Your task to perform on an android device: What's the weather like in Johannesburg? Image 0: 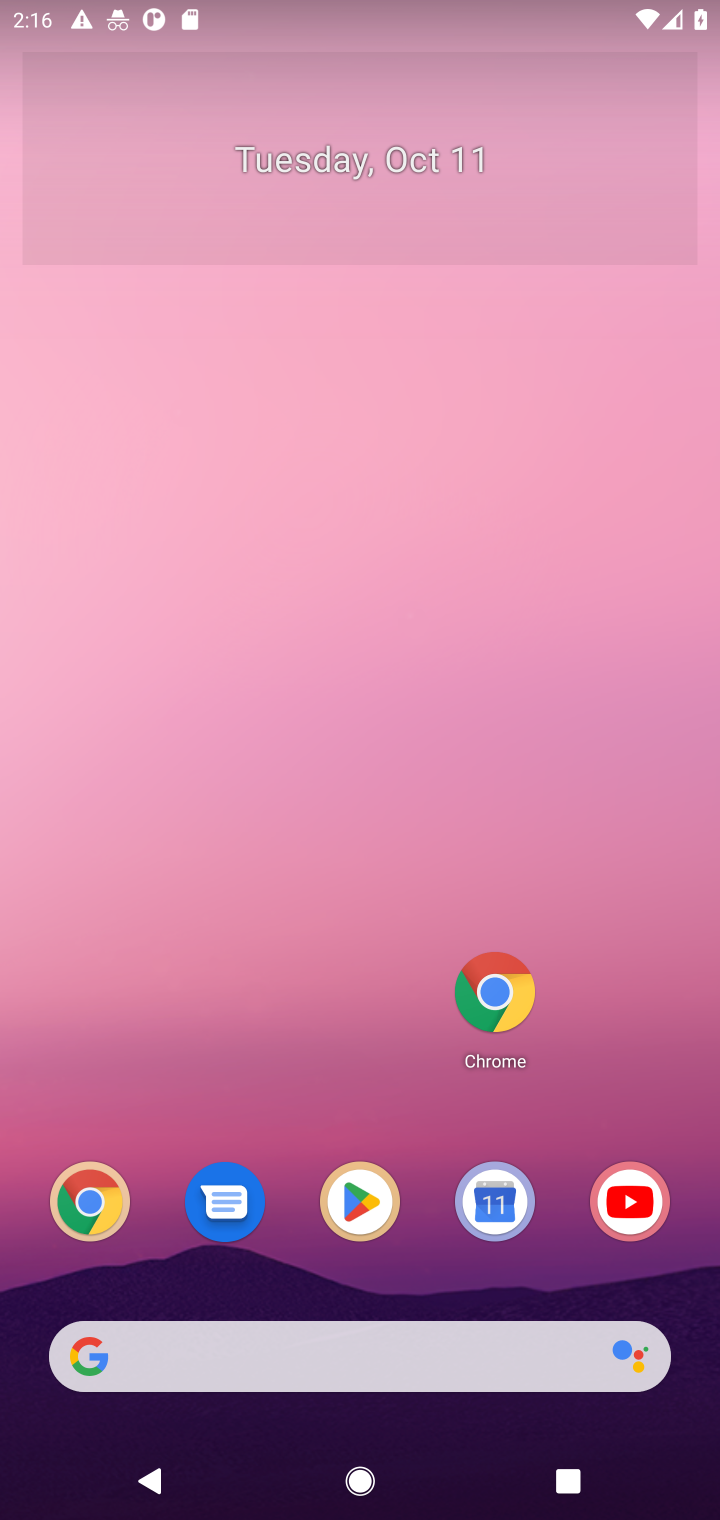
Step 0: click (511, 984)
Your task to perform on an android device: What's the weather like in Johannesburg? Image 1: 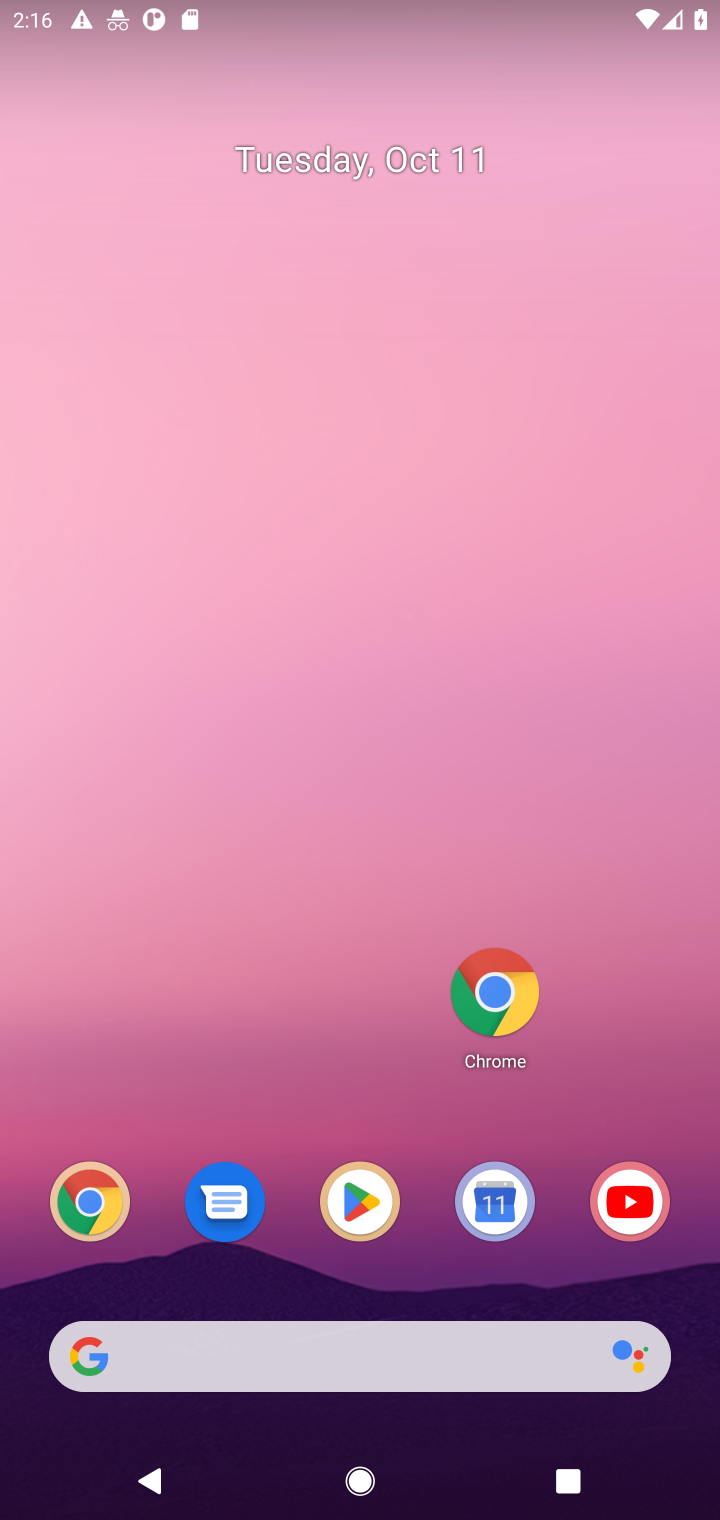
Step 1: click (513, 984)
Your task to perform on an android device: What's the weather like in Johannesburg? Image 2: 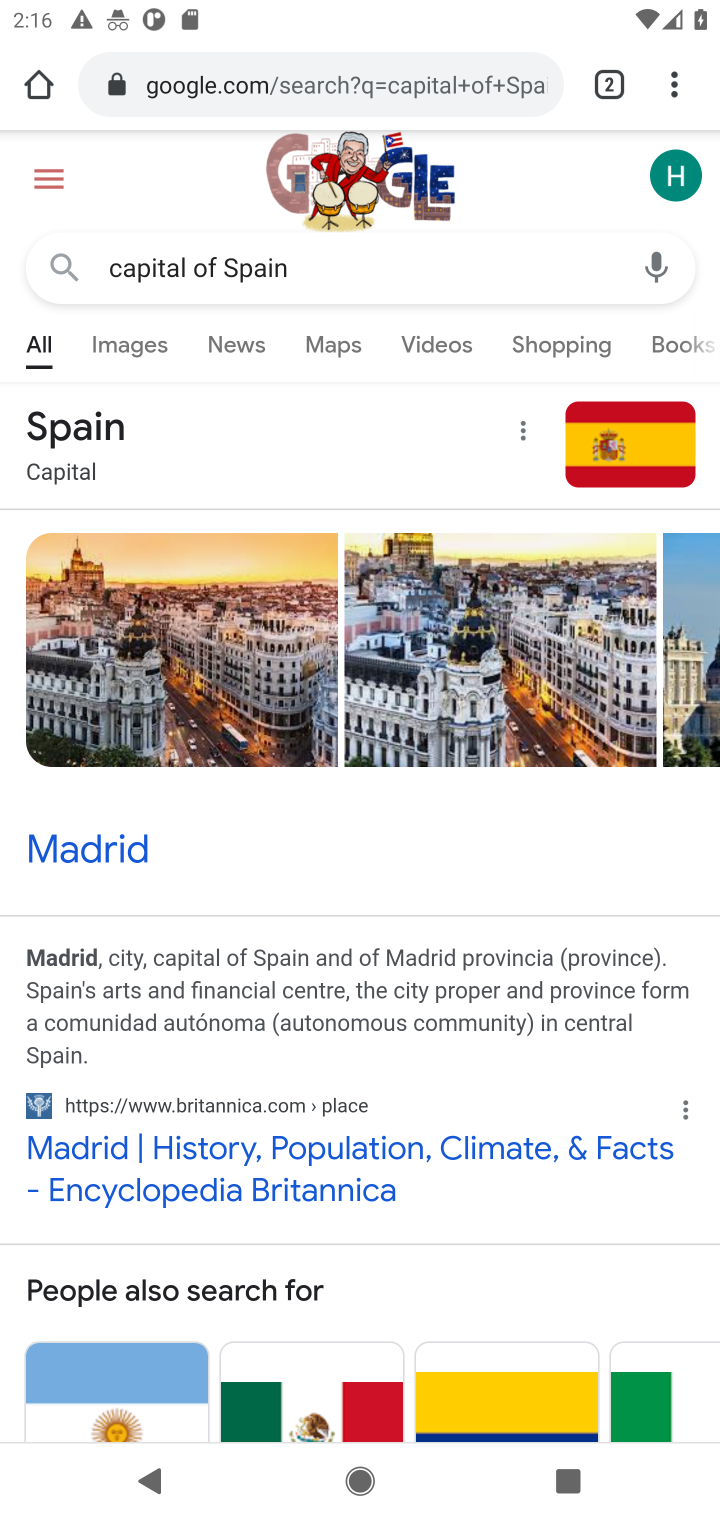
Step 2: click (454, 77)
Your task to perform on an android device: What's the weather like in Johannesburg? Image 3: 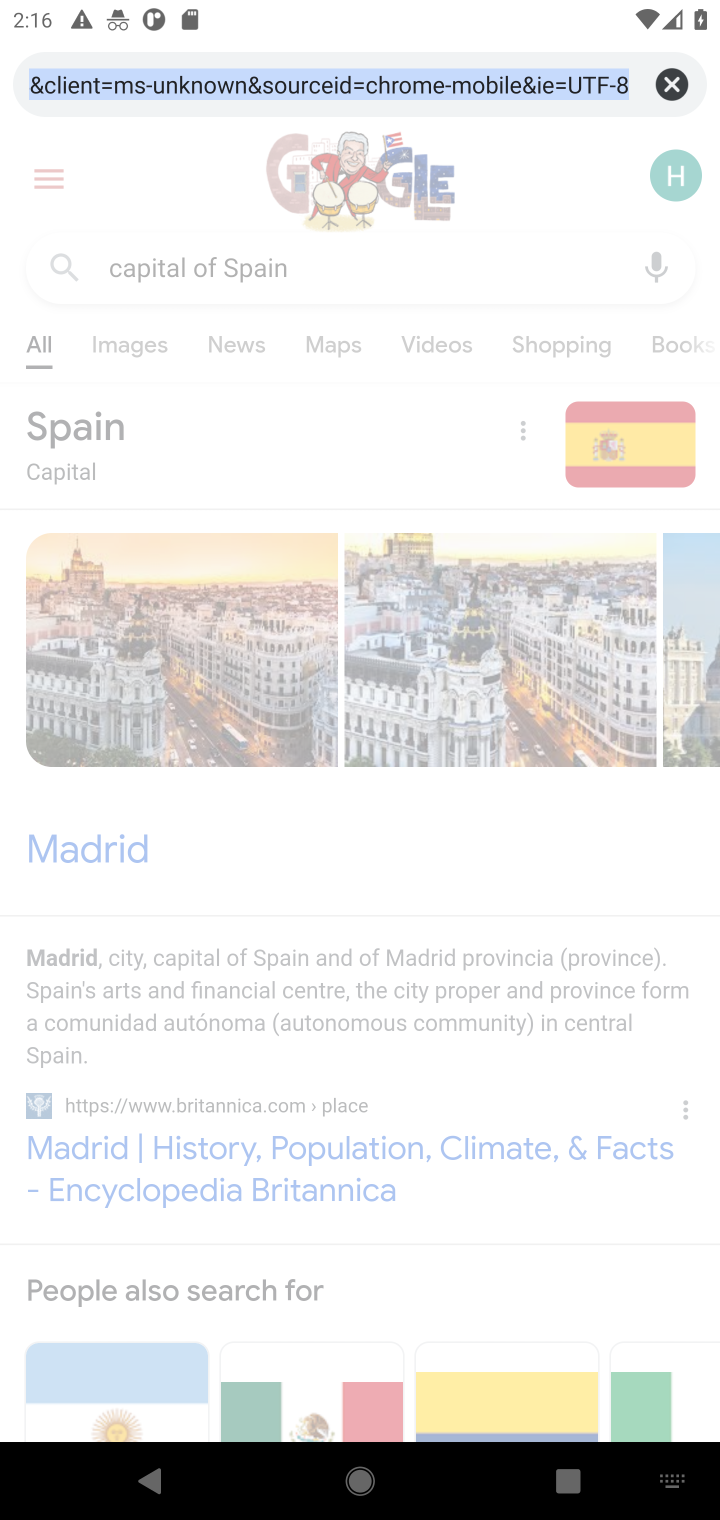
Step 3: click (670, 85)
Your task to perform on an android device: What's the weather like in Johannesburg? Image 4: 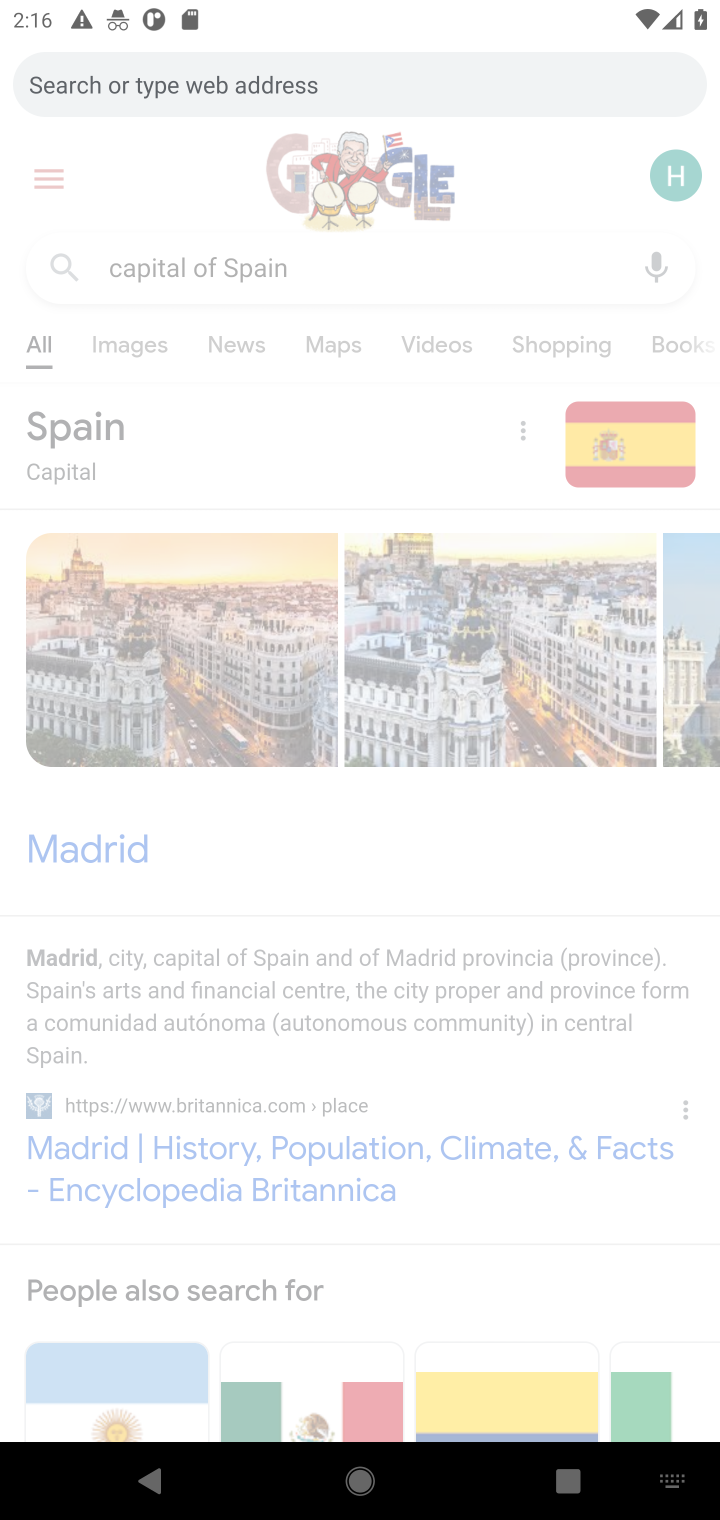
Step 4: type "weather like in Johannesburg"
Your task to perform on an android device: What's the weather like in Johannesburg? Image 5: 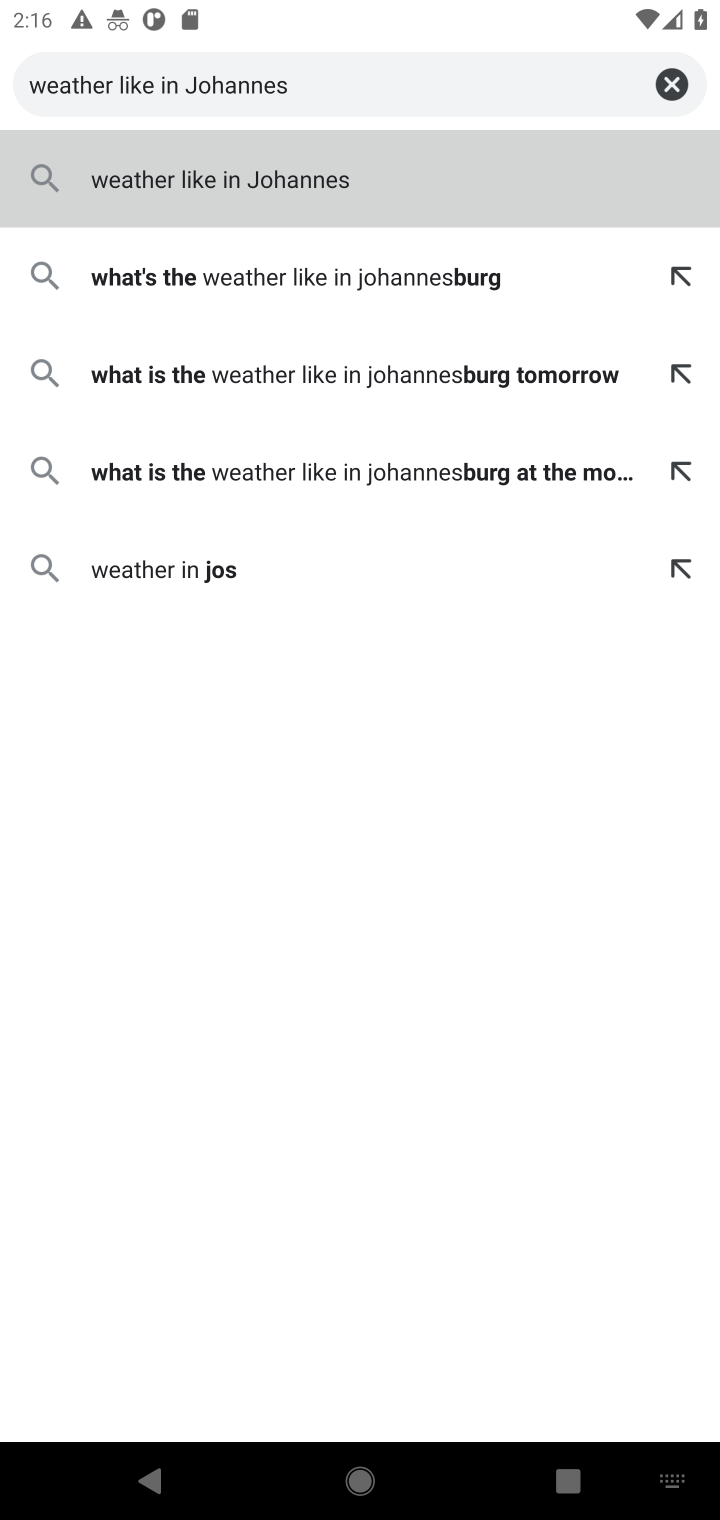
Step 5: press enter
Your task to perform on an android device: What's the weather like in Johannesburg? Image 6: 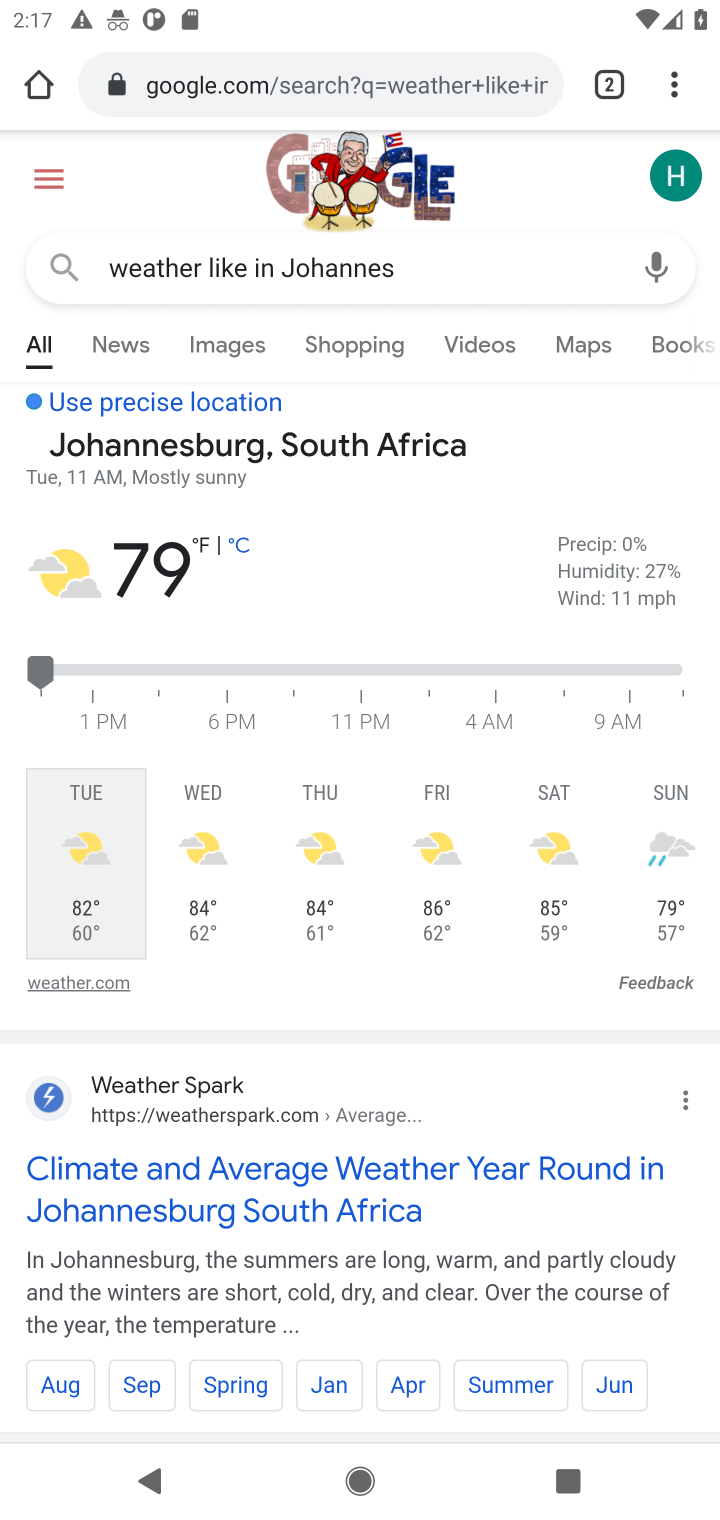
Step 6: task complete